Your task to perform on an android device: check google app version Image 0: 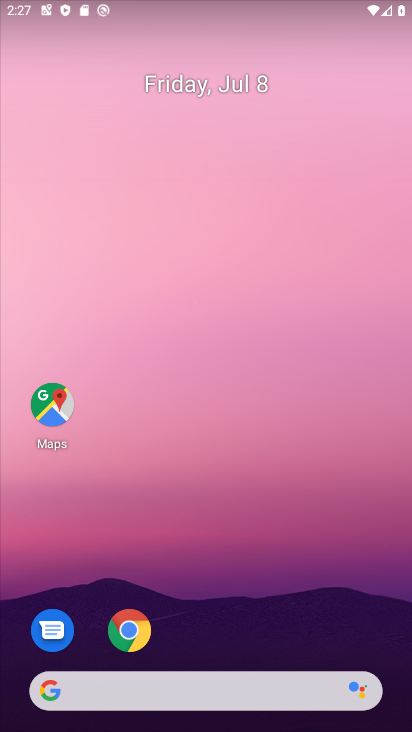
Step 0: drag from (259, 637) to (156, 64)
Your task to perform on an android device: check google app version Image 1: 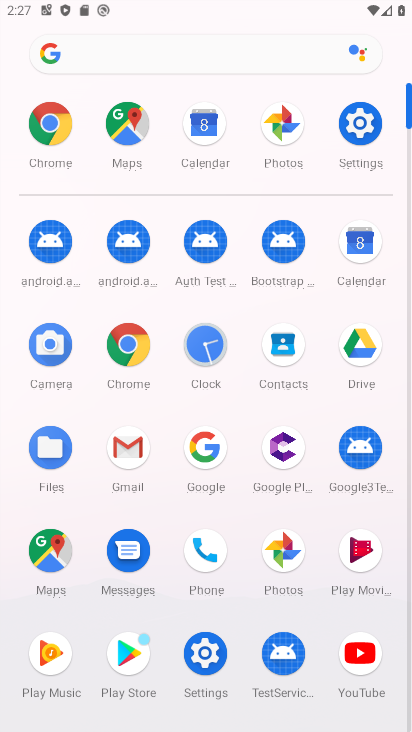
Step 1: click (70, 148)
Your task to perform on an android device: check google app version Image 2: 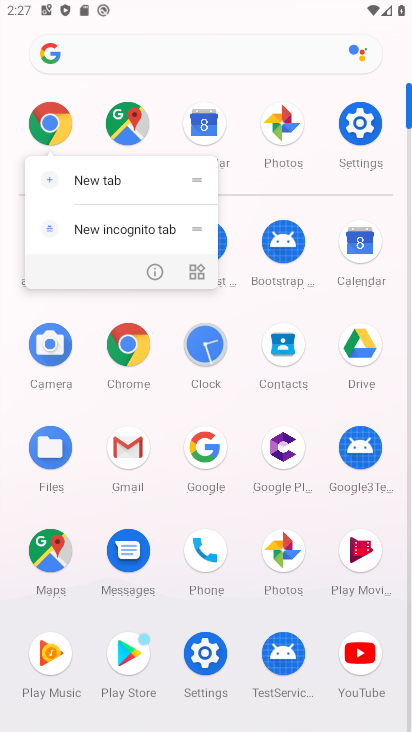
Step 2: click (158, 270)
Your task to perform on an android device: check google app version Image 3: 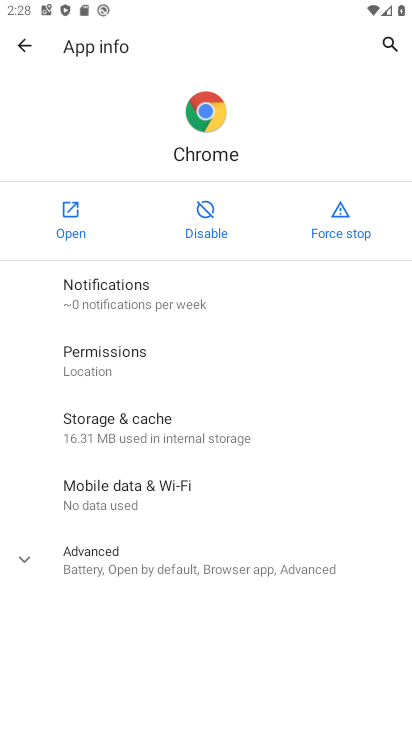
Step 3: click (273, 570)
Your task to perform on an android device: check google app version Image 4: 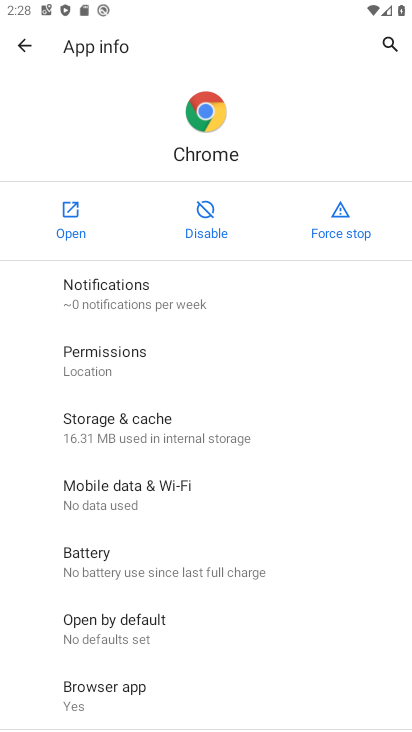
Step 4: task complete